Your task to perform on an android device: Go to notification settings Image 0: 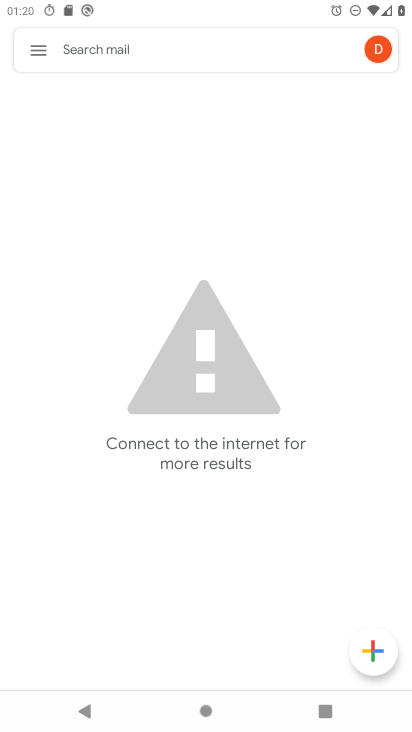
Step 0: press home button
Your task to perform on an android device: Go to notification settings Image 1: 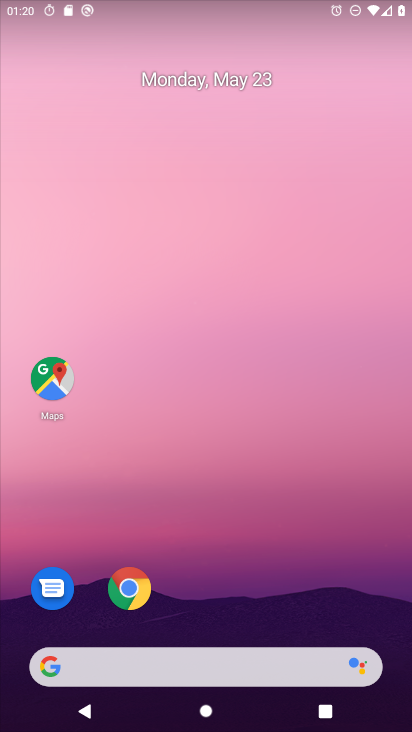
Step 1: drag from (241, 669) to (238, 18)
Your task to perform on an android device: Go to notification settings Image 2: 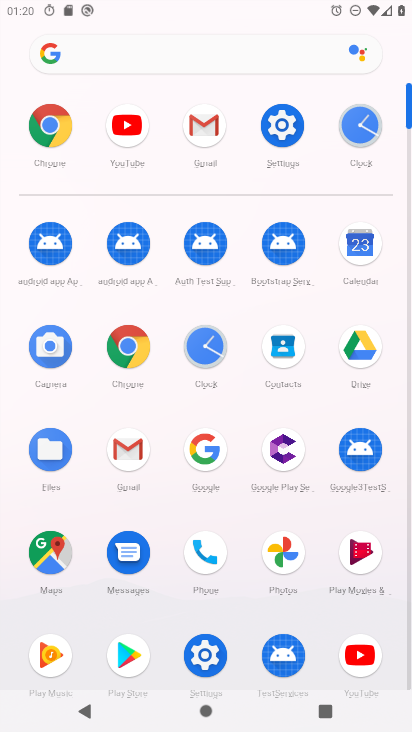
Step 2: click (282, 119)
Your task to perform on an android device: Go to notification settings Image 3: 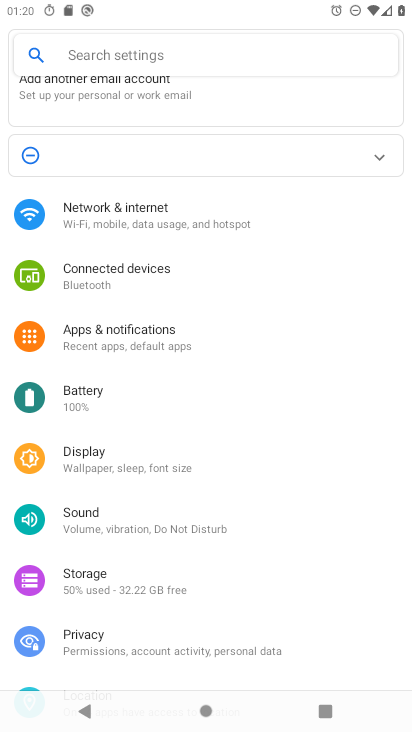
Step 3: click (162, 60)
Your task to perform on an android device: Go to notification settings Image 4: 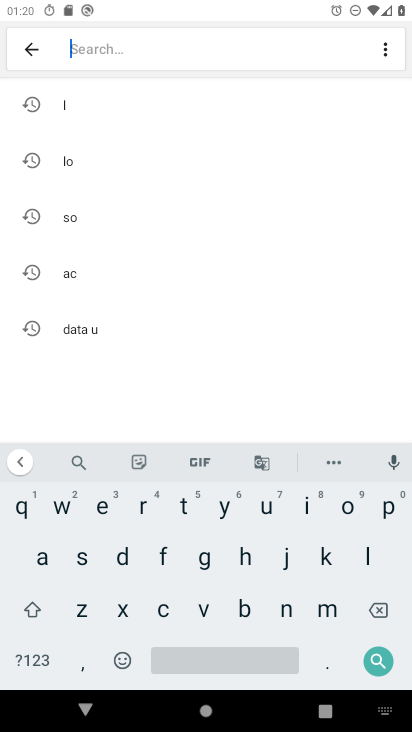
Step 4: click (288, 624)
Your task to perform on an android device: Go to notification settings Image 5: 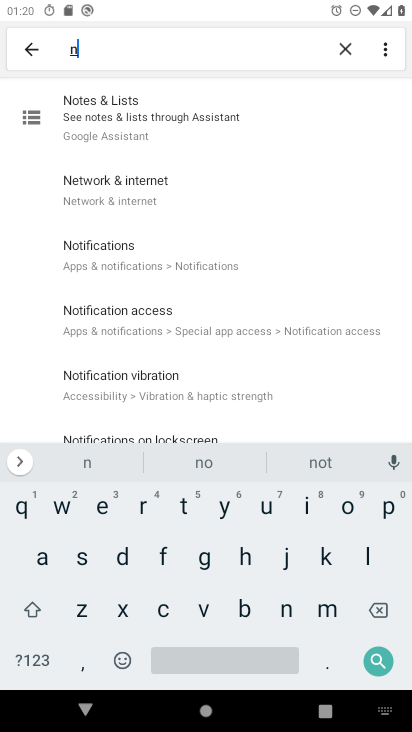
Step 5: click (168, 263)
Your task to perform on an android device: Go to notification settings Image 6: 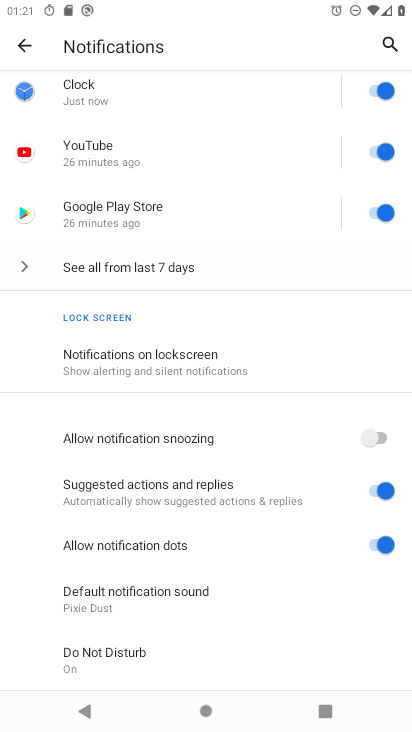
Step 6: click (94, 352)
Your task to perform on an android device: Go to notification settings Image 7: 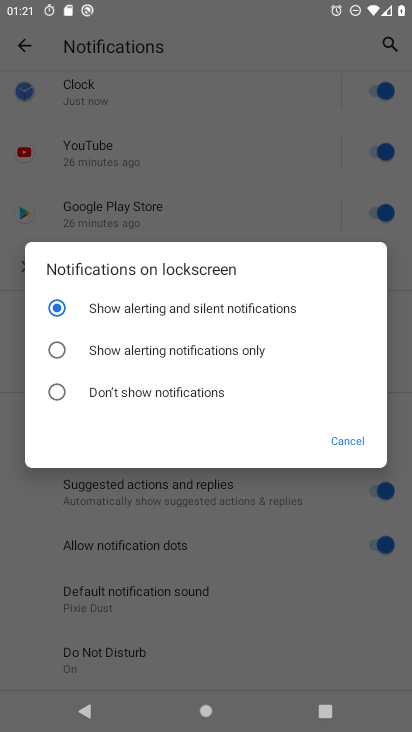
Step 7: task complete